Your task to perform on an android device: What's the weather going to be this weekend? Image 0: 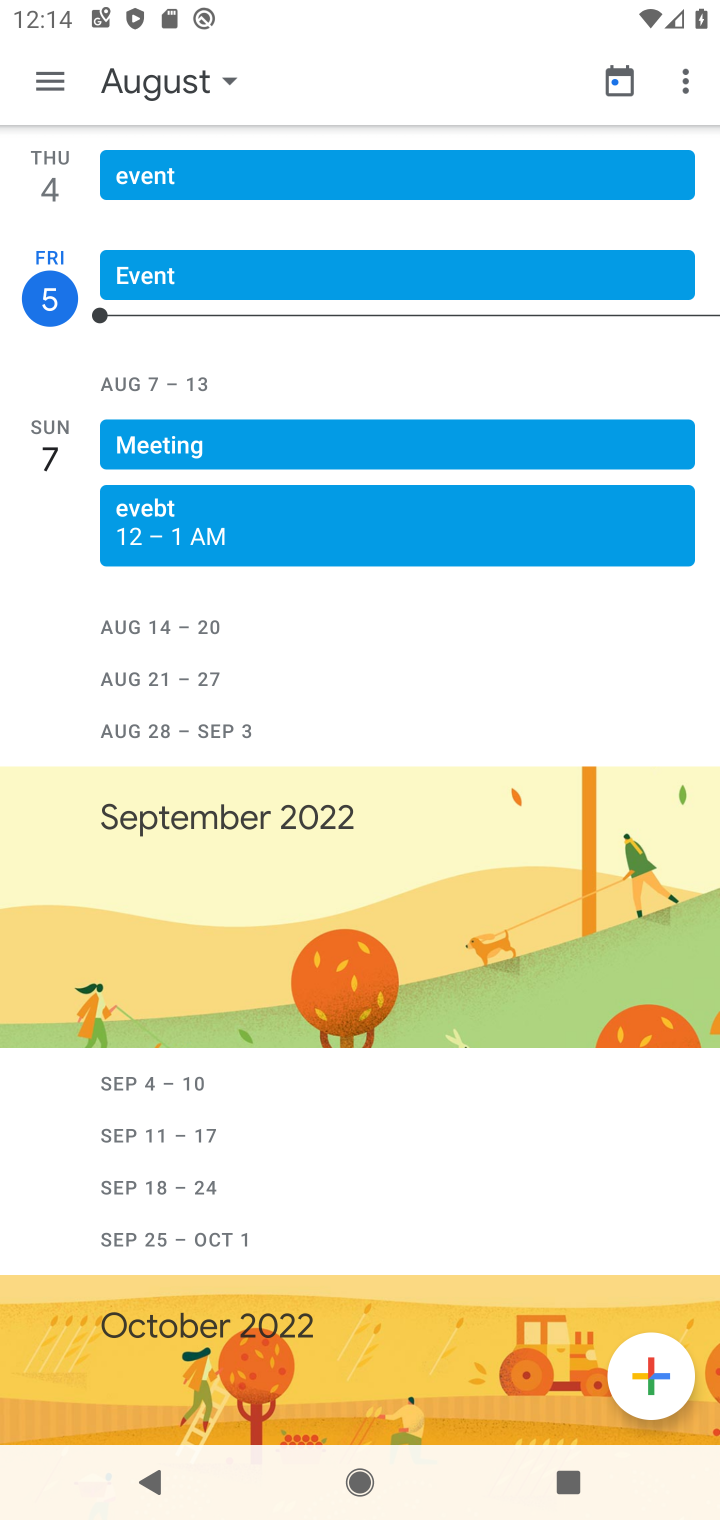
Step 0: press back button
Your task to perform on an android device: What's the weather going to be this weekend? Image 1: 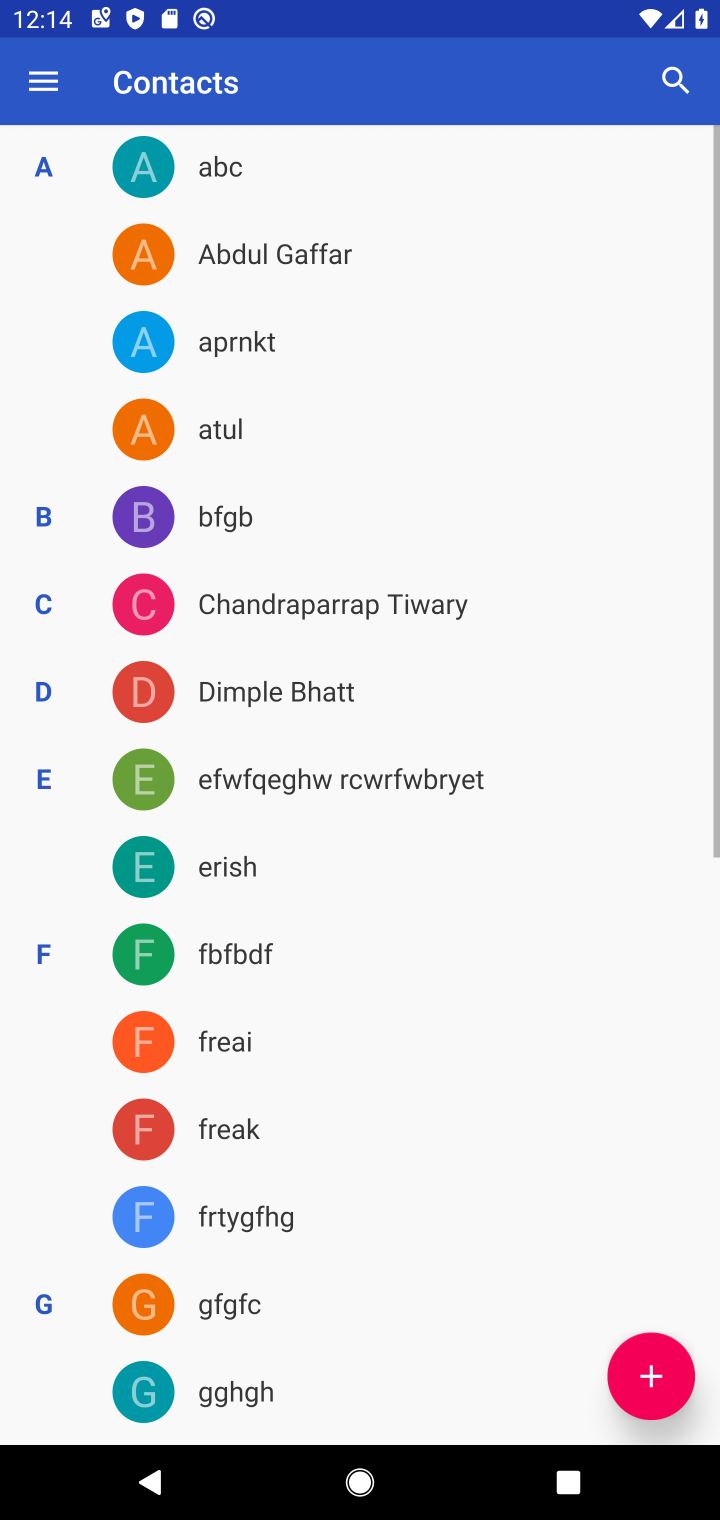
Step 1: press back button
Your task to perform on an android device: What's the weather going to be this weekend? Image 2: 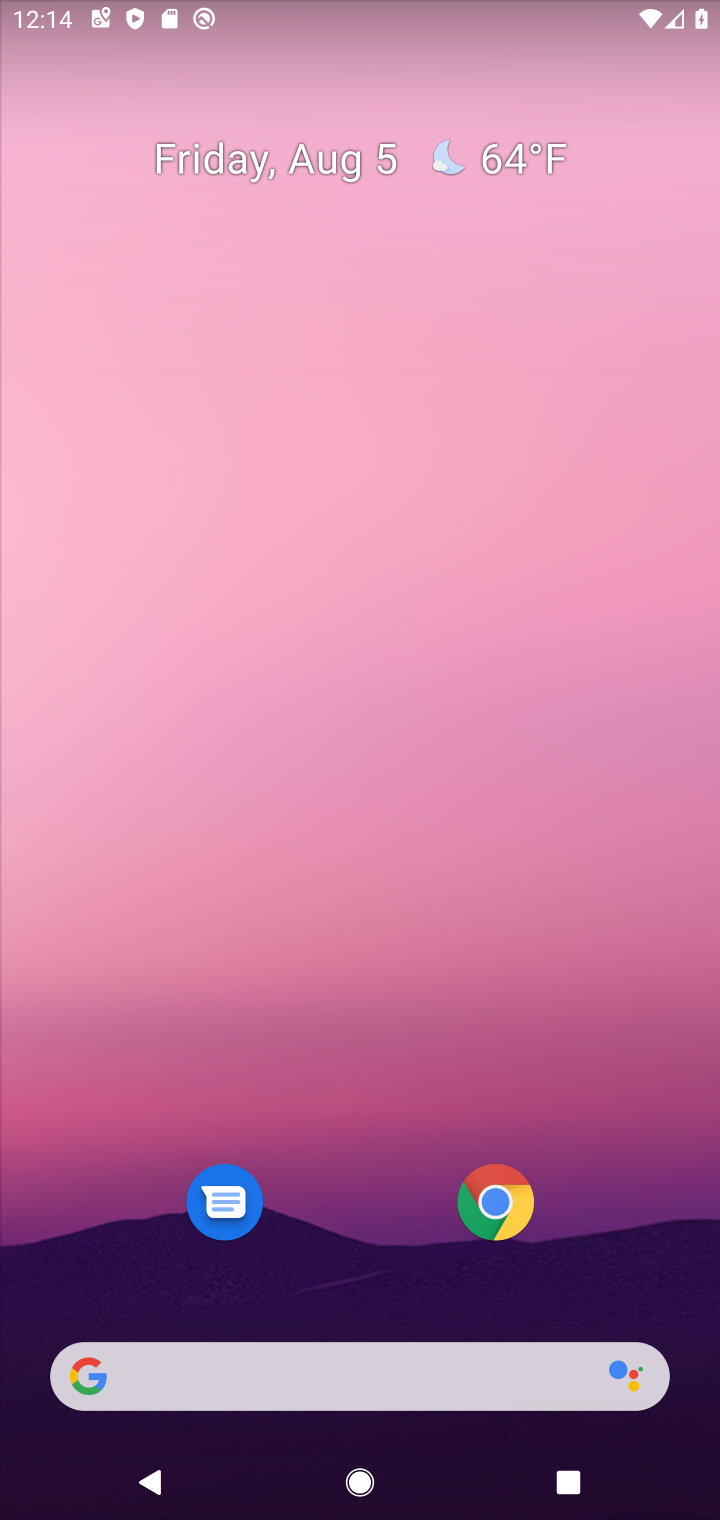
Step 2: press home button
Your task to perform on an android device: What's the weather going to be this weekend? Image 3: 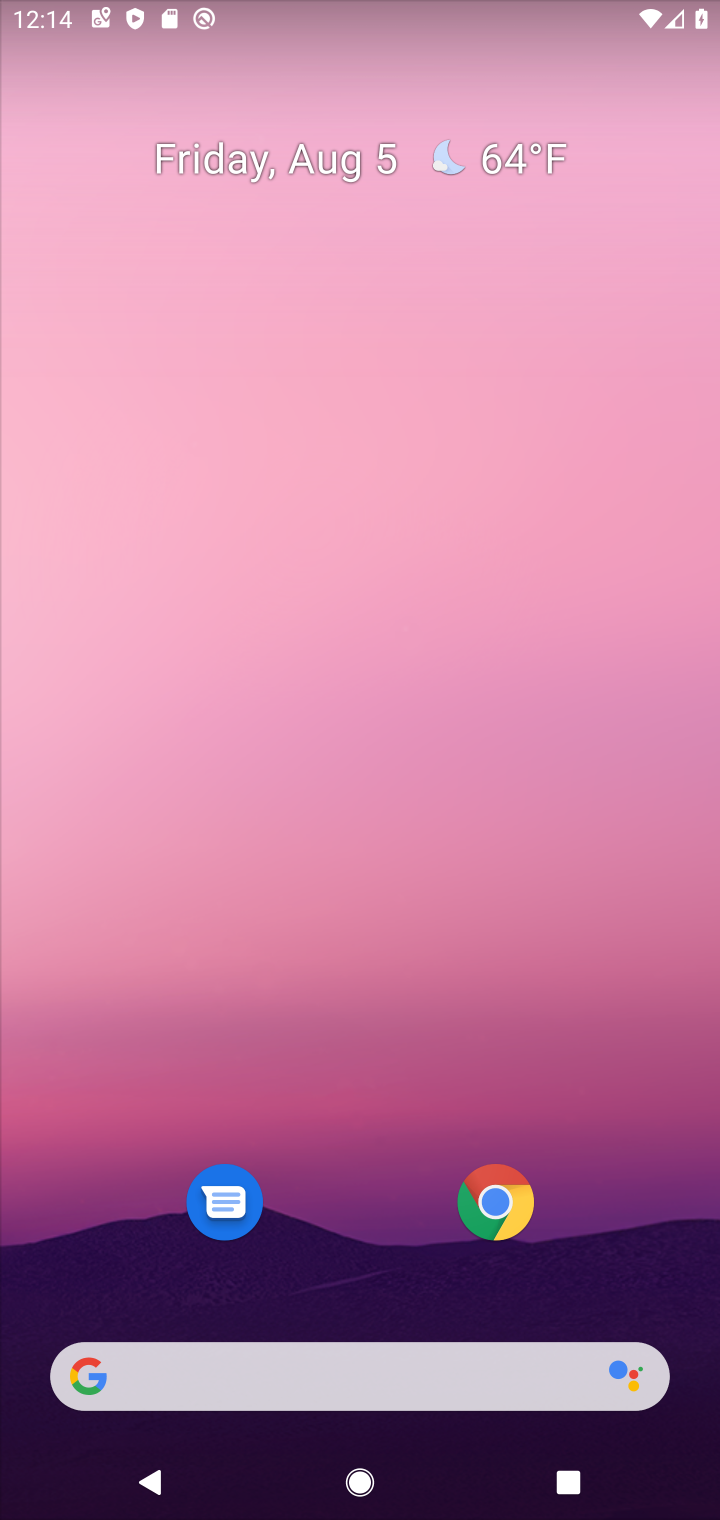
Step 3: drag from (290, 1268) to (436, 180)
Your task to perform on an android device: What's the weather going to be this weekend? Image 4: 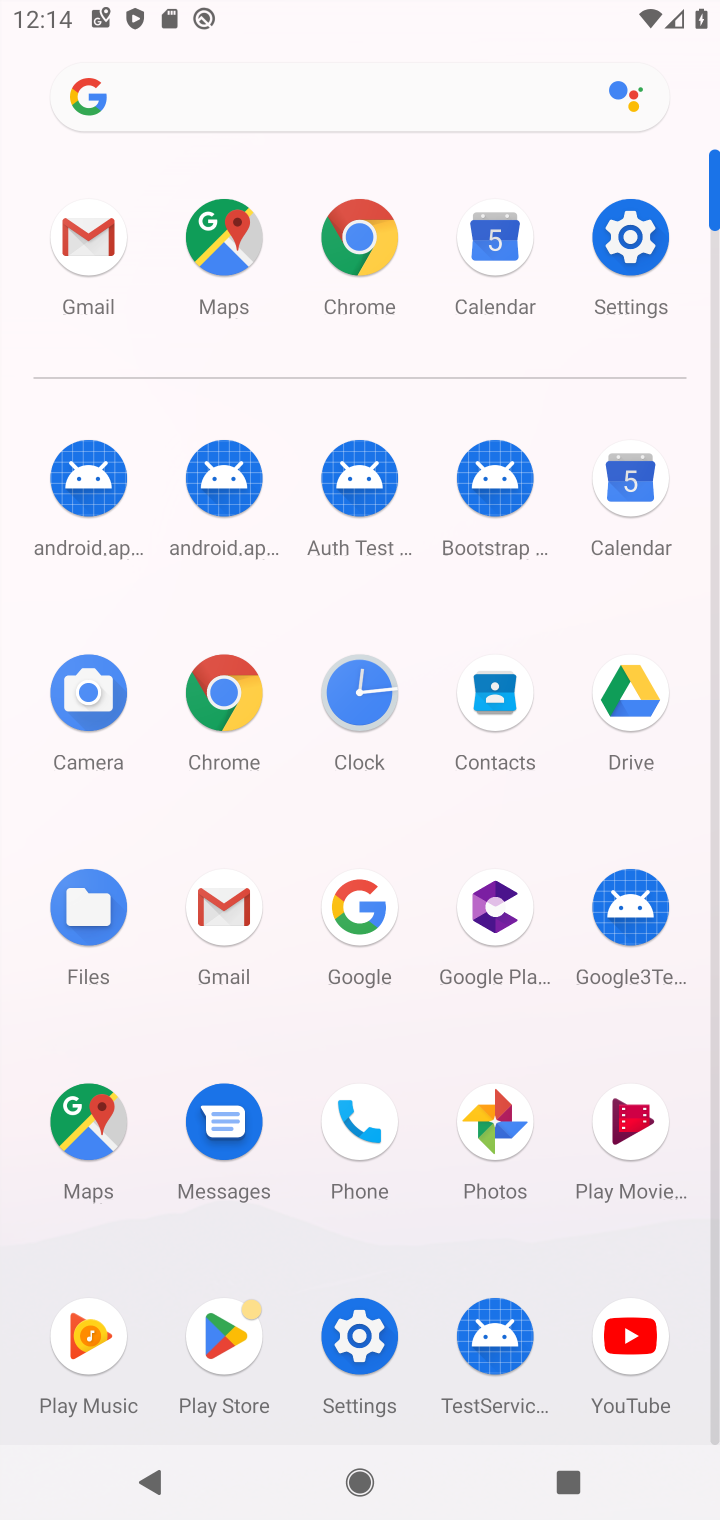
Step 4: click (255, 90)
Your task to perform on an android device: What's the weather going to be this weekend? Image 5: 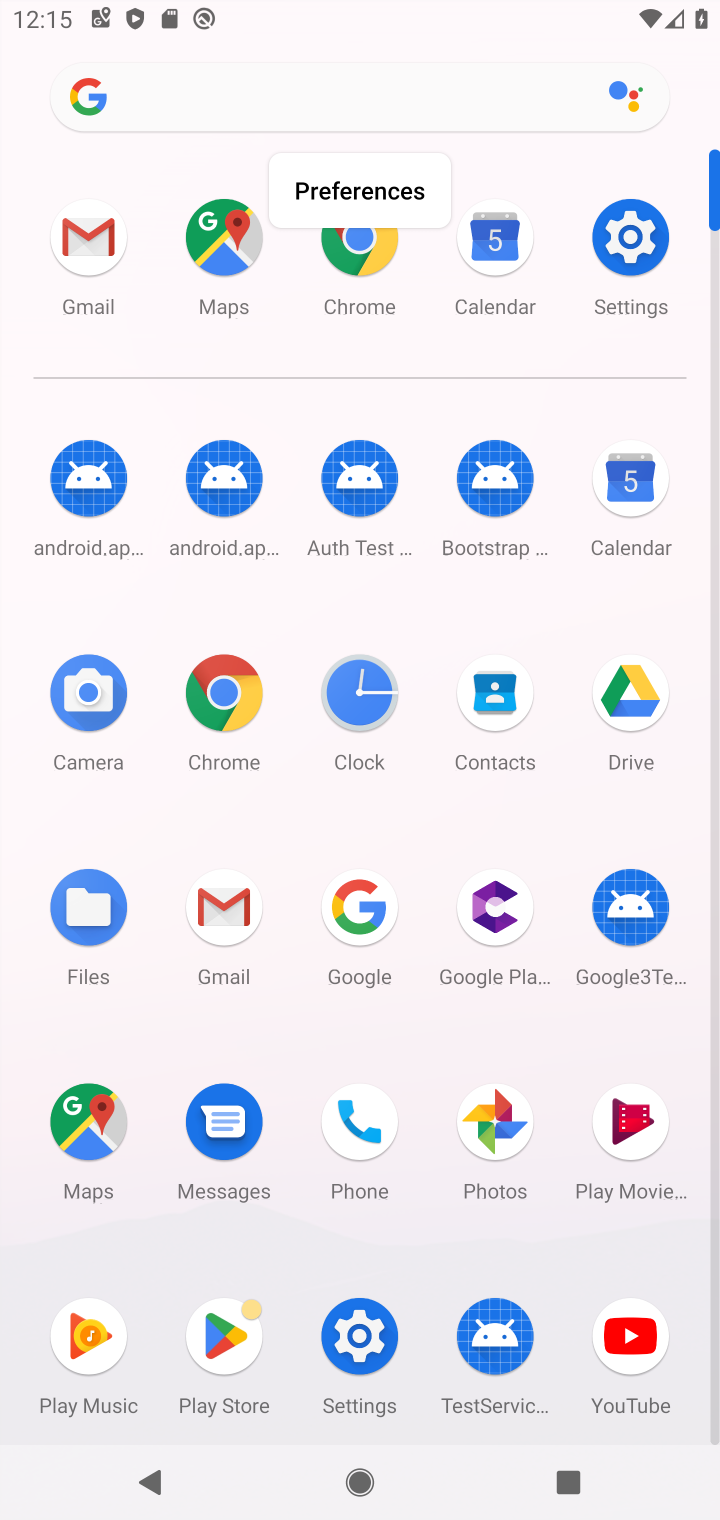
Step 5: click (228, 94)
Your task to perform on an android device: What's the weather going to be this weekend? Image 6: 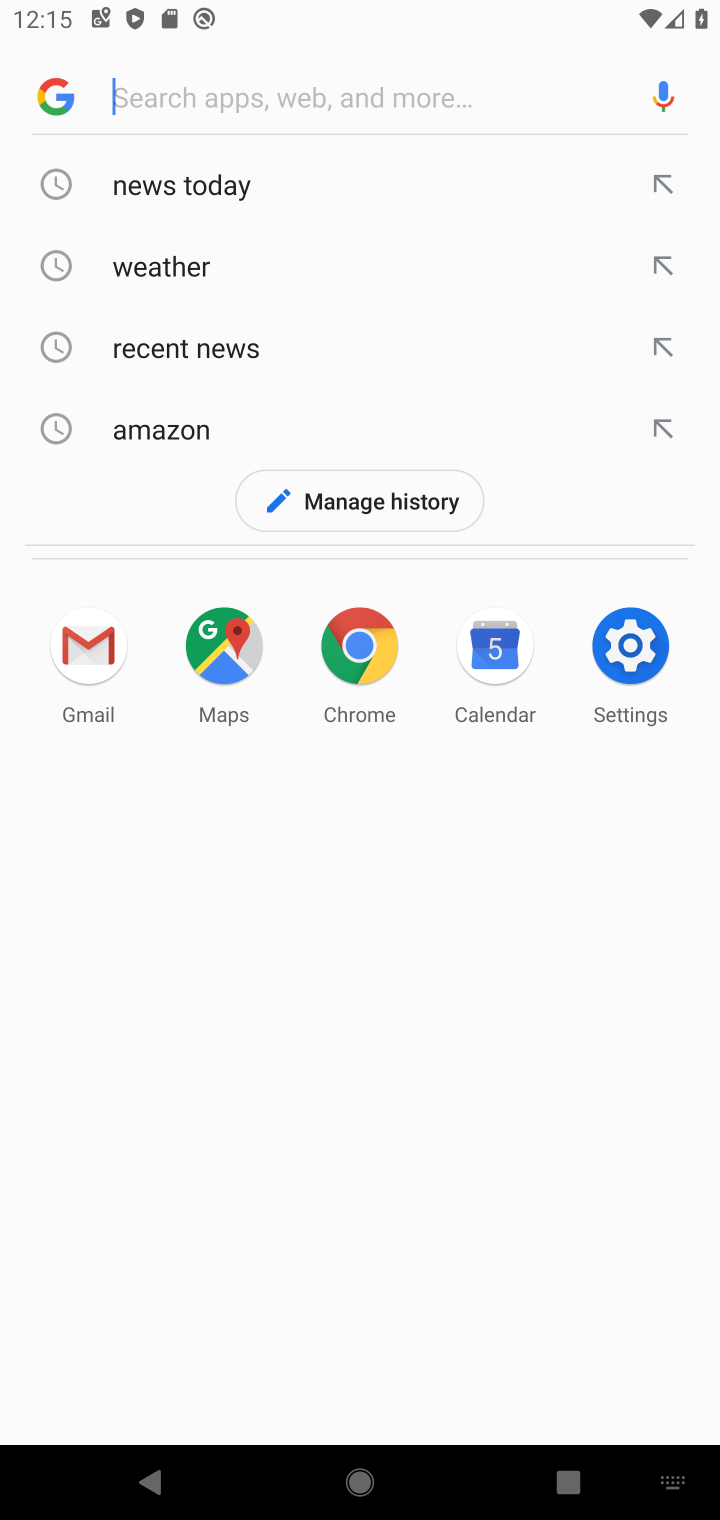
Step 6: type "weather"
Your task to perform on an android device: What's the weather going to be this weekend? Image 7: 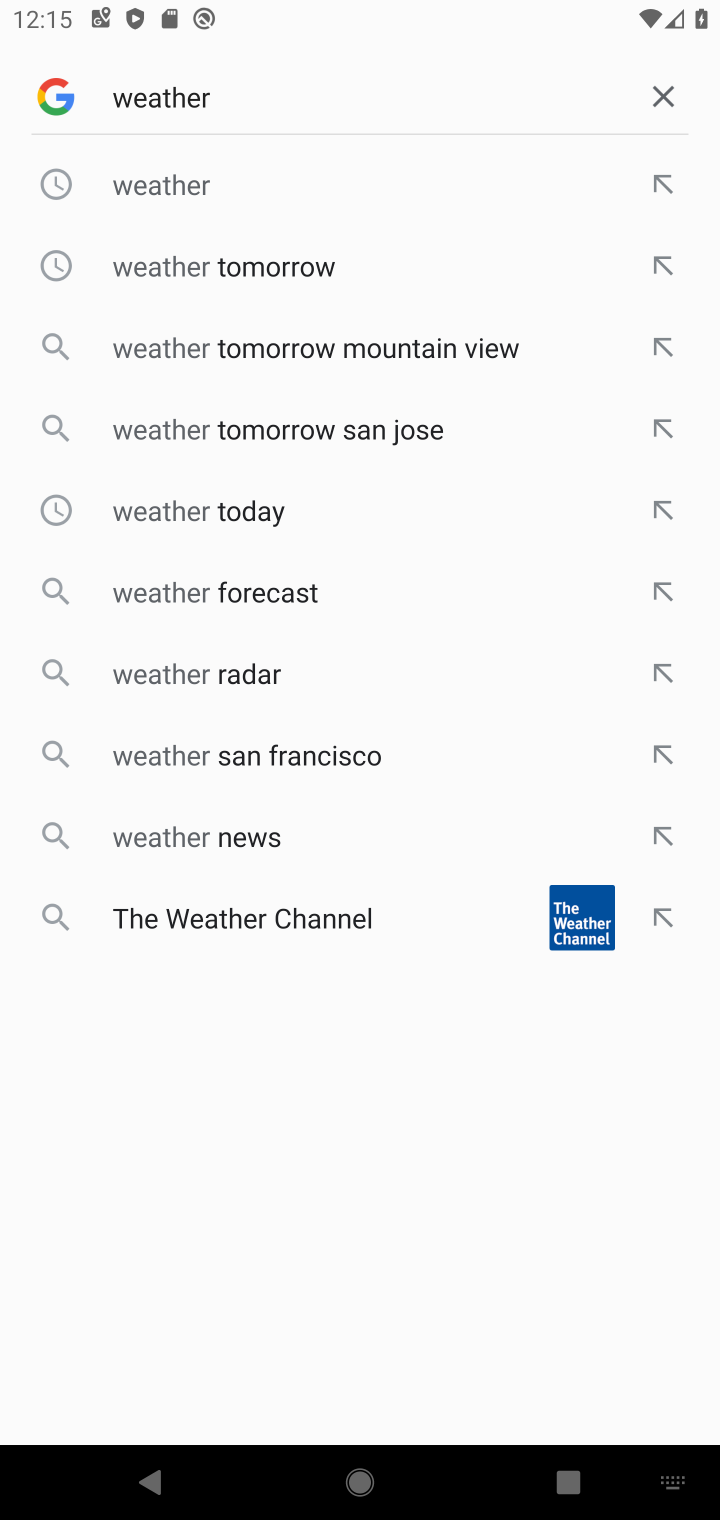
Step 7: click (230, 202)
Your task to perform on an android device: What's the weather going to be this weekend? Image 8: 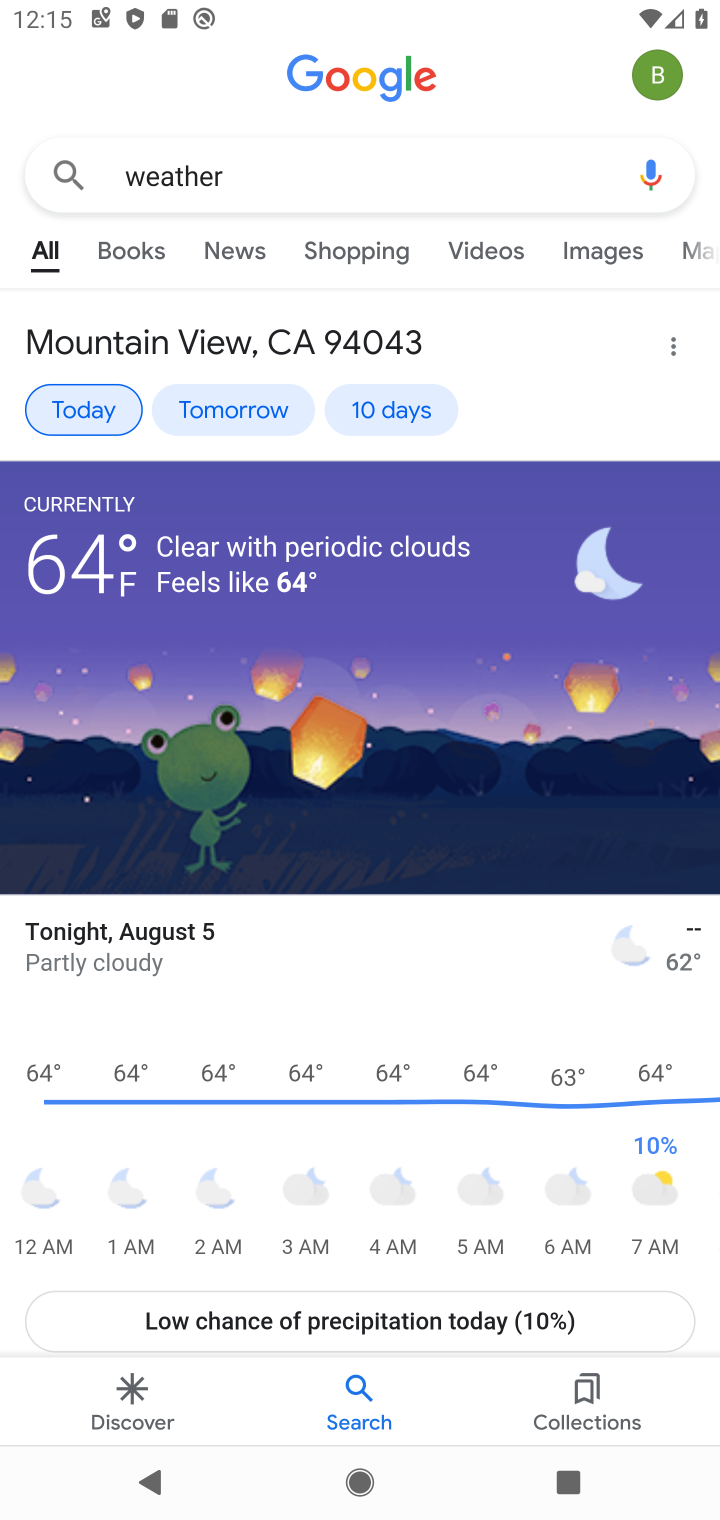
Step 8: click (376, 406)
Your task to perform on an android device: What's the weather going to be this weekend? Image 9: 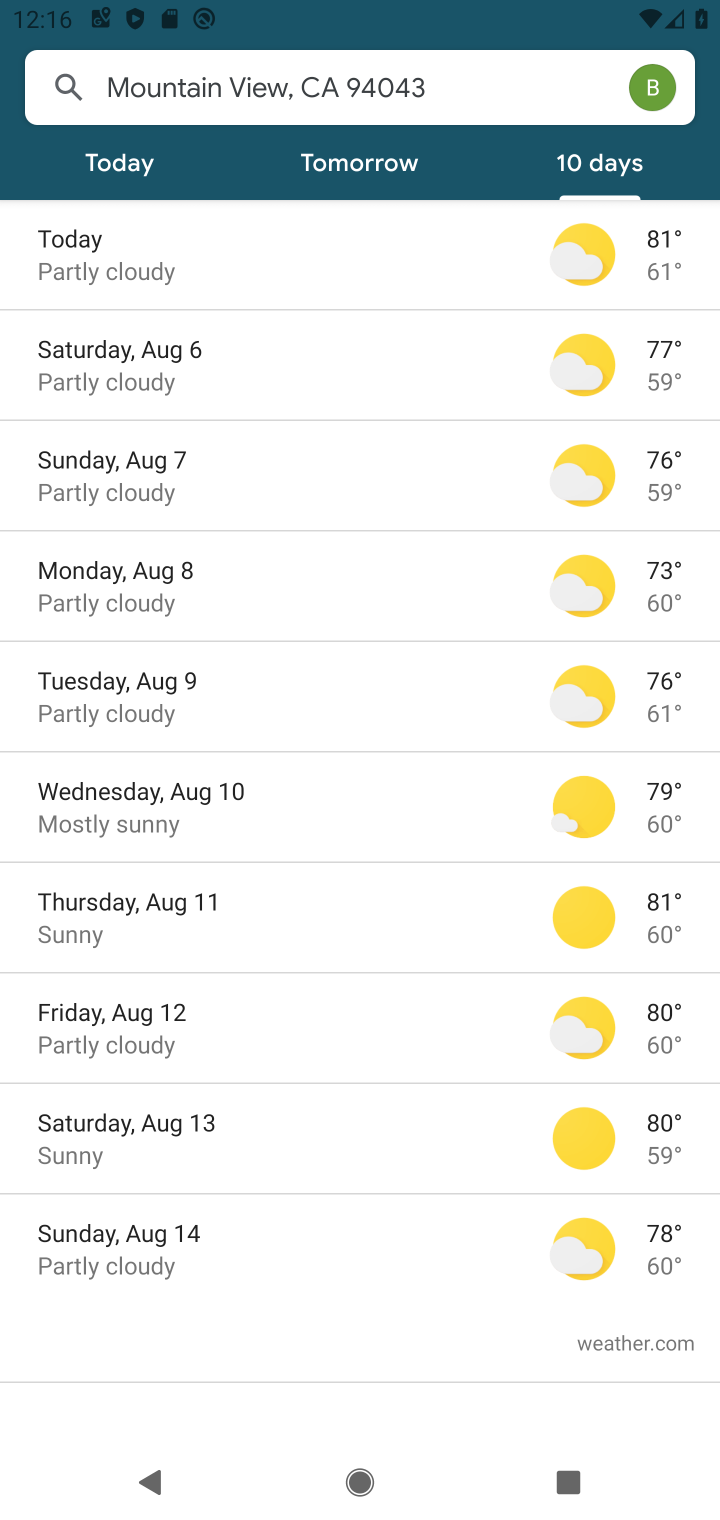
Step 9: task complete